Your task to perform on an android device: turn notification dots on Image 0: 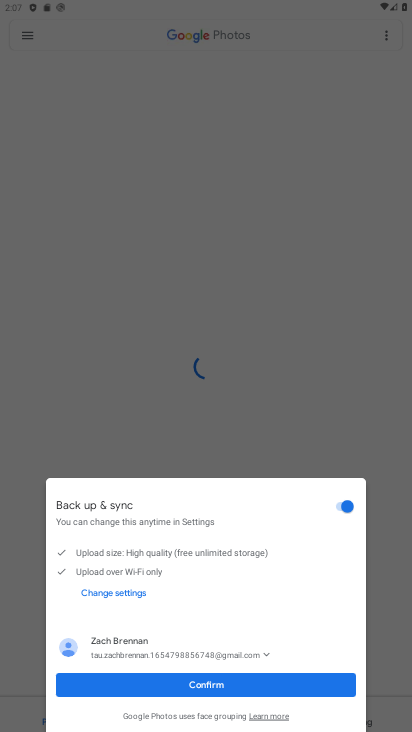
Step 0: press home button
Your task to perform on an android device: turn notification dots on Image 1: 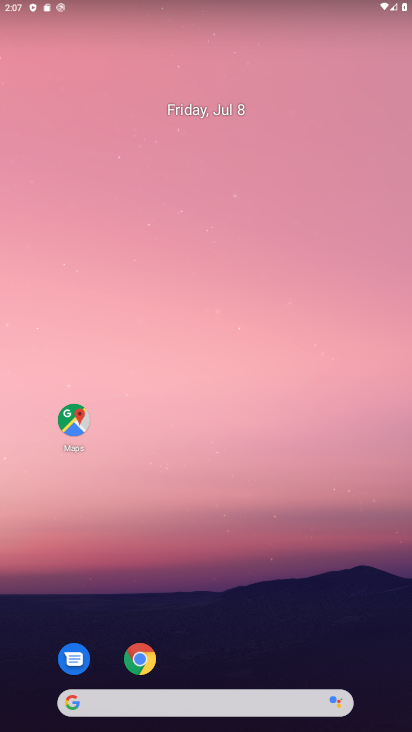
Step 1: drag from (297, 618) to (256, 171)
Your task to perform on an android device: turn notification dots on Image 2: 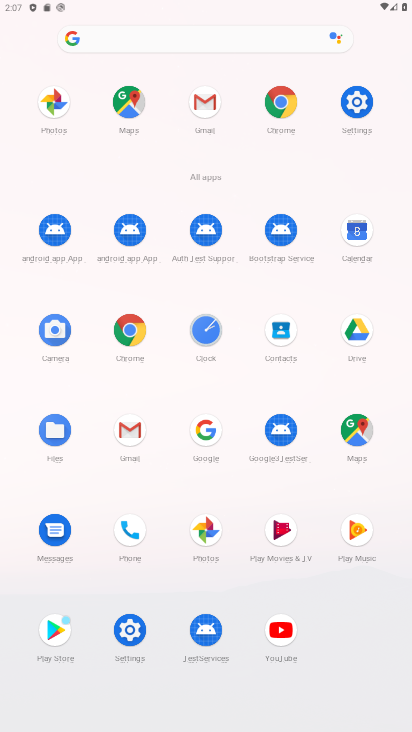
Step 2: click (367, 92)
Your task to perform on an android device: turn notification dots on Image 3: 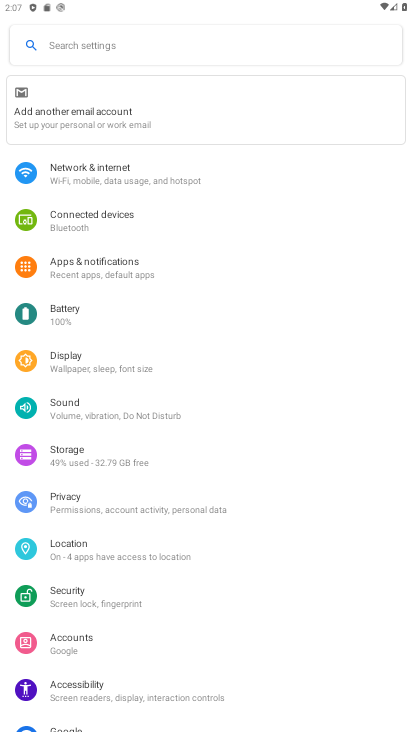
Step 3: click (194, 254)
Your task to perform on an android device: turn notification dots on Image 4: 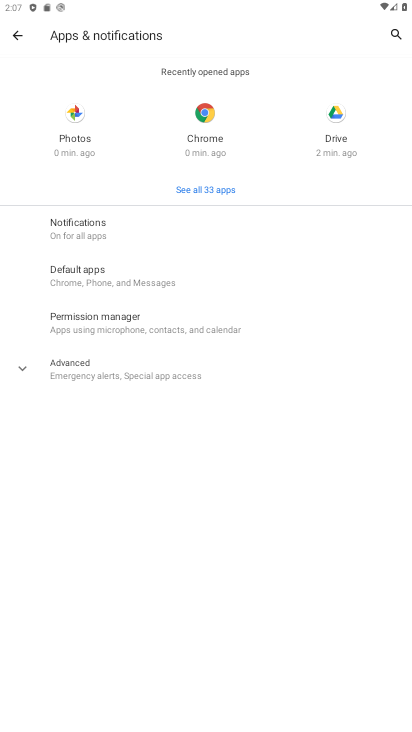
Step 4: click (91, 237)
Your task to perform on an android device: turn notification dots on Image 5: 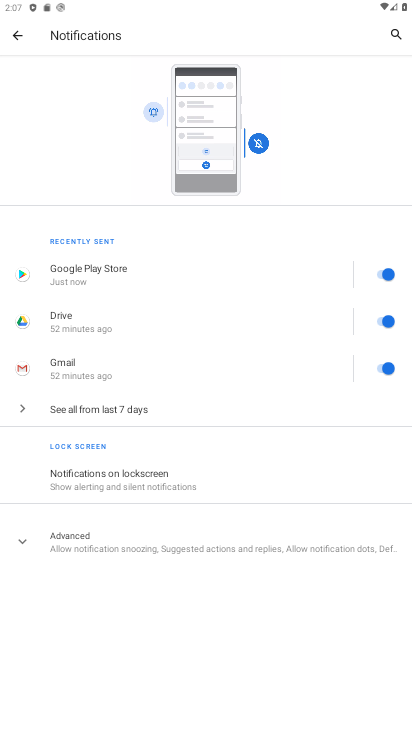
Step 5: click (125, 537)
Your task to perform on an android device: turn notification dots on Image 6: 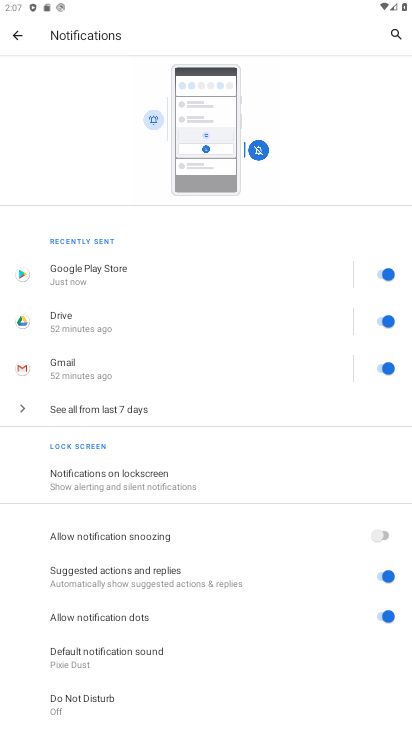
Step 6: task complete